Your task to perform on an android device: Go to Android settings Image 0: 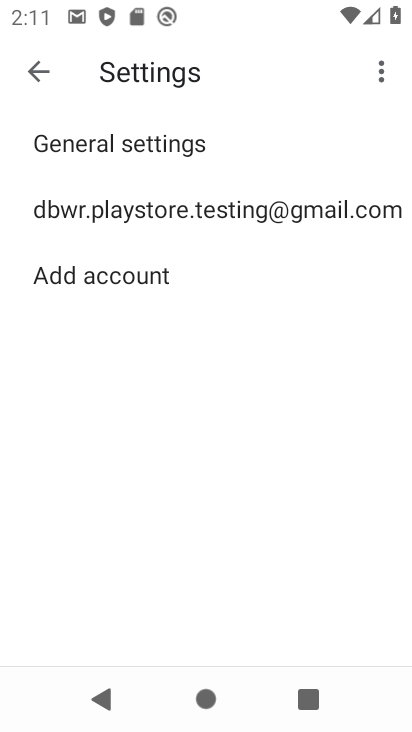
Step 0: press home button
Your task to perform on an android device: Go to Android settings Image 1: 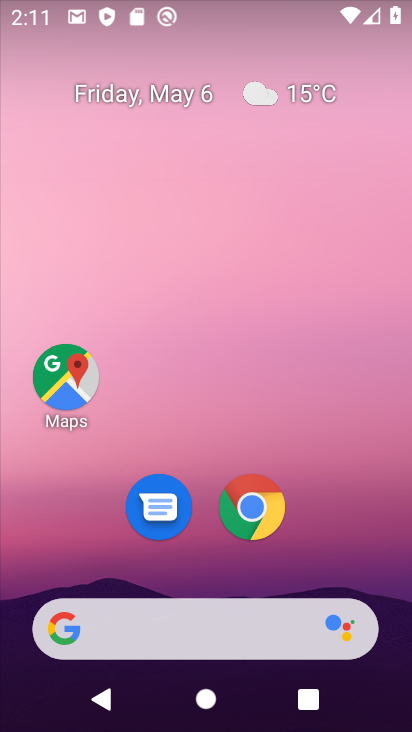
Step 1: click (406, 81)
Your task to perform on an android device: Go to Android settings Image 2: 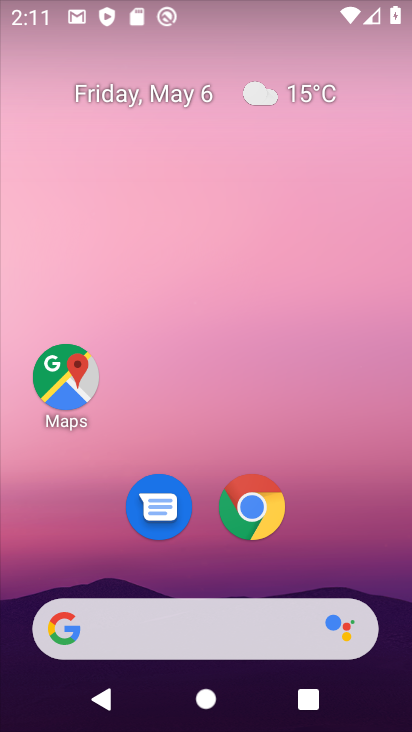
Step 2: drag from (322, 474) to (333, 82)
Your task to perform on an android device: Go to Android settings Image 3: 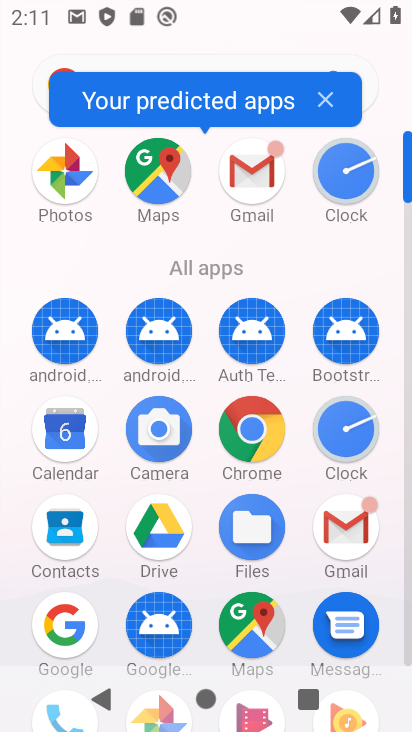
Step 3: drag from (302, 579) to (327, 388)
Your task to perform on an android device: Go to Android settings Image 4: 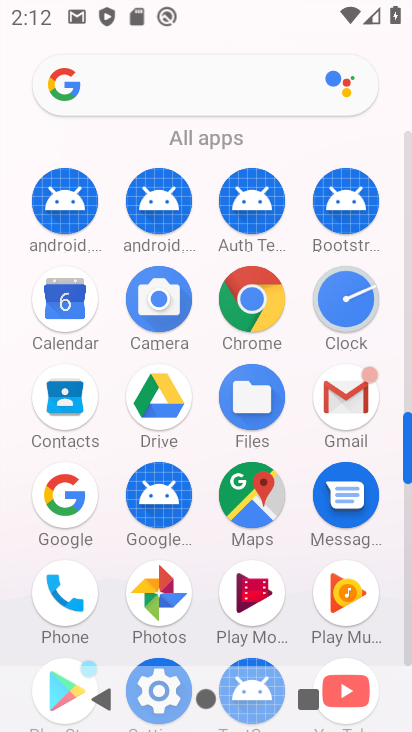
Step 4: drag from (214, 603) to (236, 486)
Your task to perform on an android device: Go to Android settings Image 5: 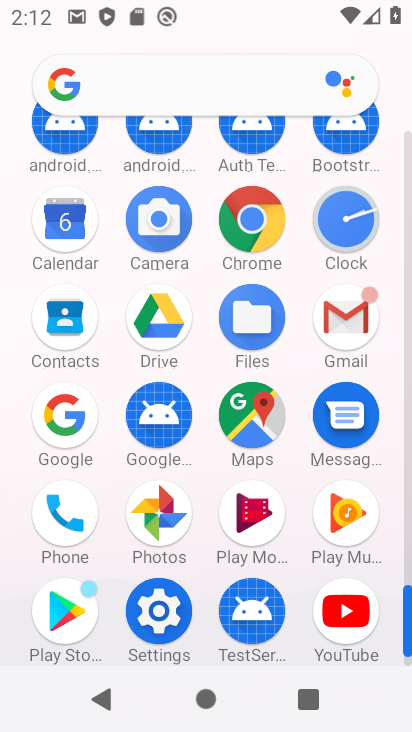
Step 5: click (168, 625)
Your task to perform on an android device: Go to Android settings Image 6: 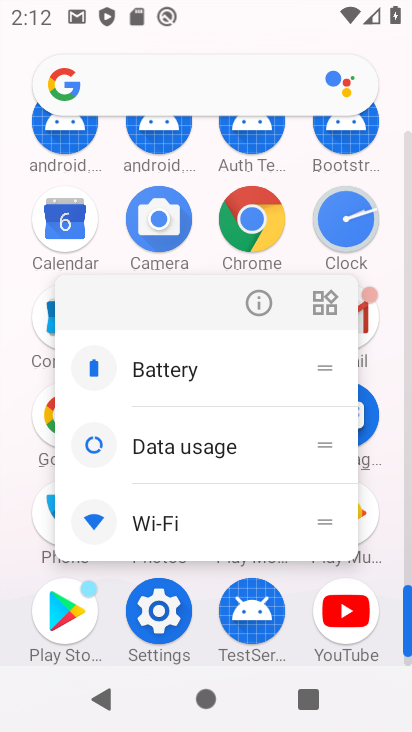
Step 6: click (178, 599)
Your task to perform on an android device: Go to Android settings Image 7: 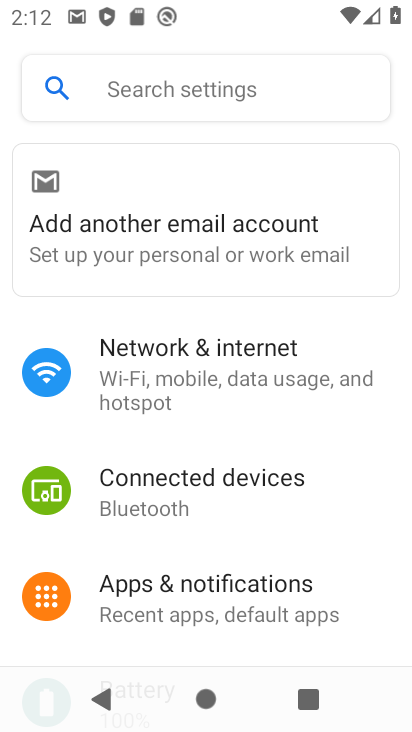
Step 7: drag from (273, 425) to (273, 276)
Your task to perform on an android device: Go to Android settings Image 8: 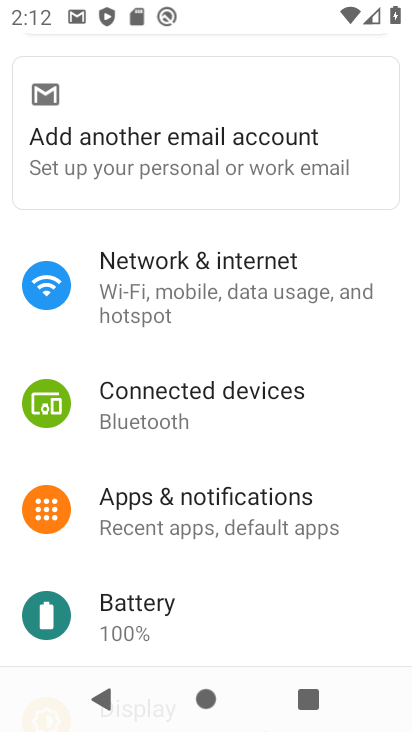
Step 8: drag from (317, 572) to (262, 395)
Your task to perform on an android device: Go to Android settings Image 9: 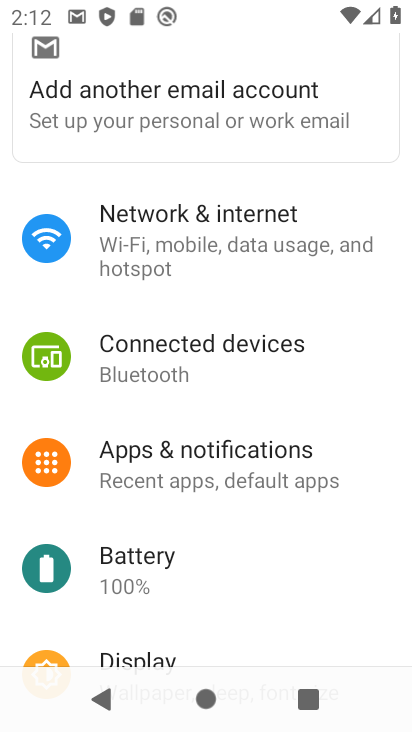
Step 9: drag from (237, 593) to (259, 154)
Your task to perform on an android device: Go to Android settings Image 10: 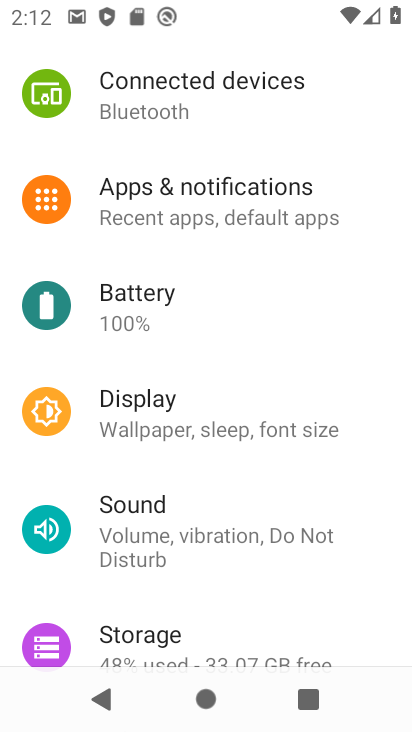
Step 10: drag from (255, 594) to (254, 382)
Your task to perform on an android device: Go to Android settings Image 11: 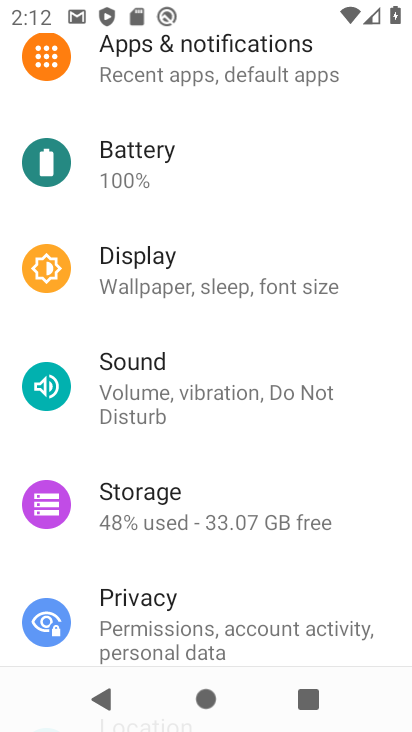
Step 11: drag from (230, 576) to (231, 234)
Your task to perform on an android device: Go to Android settings Image 12: 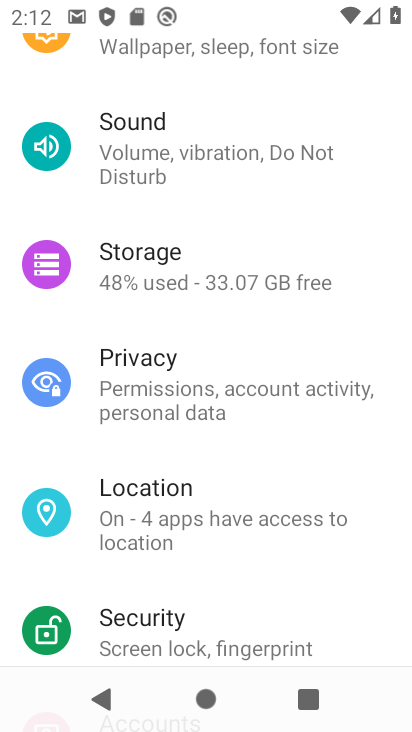
Step 12: drag from (223, 594) to (217, 222)
Your task to perform on an android device: Go to Android settings Image 13: 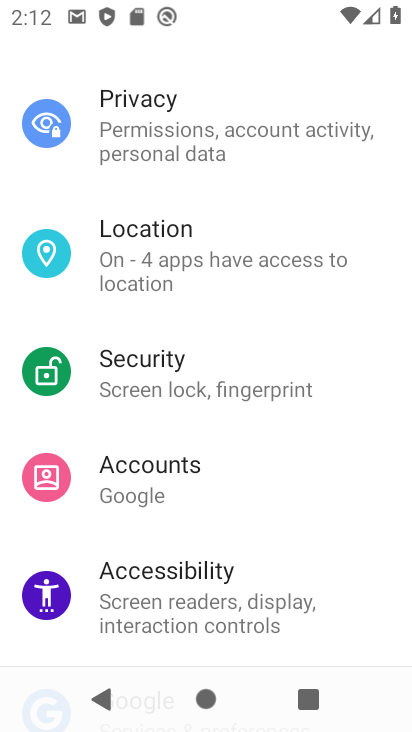
Step 13: drag from (249, 542) to (249, 274)
Your task to perform on an android device: Go to Android settings Image 14: 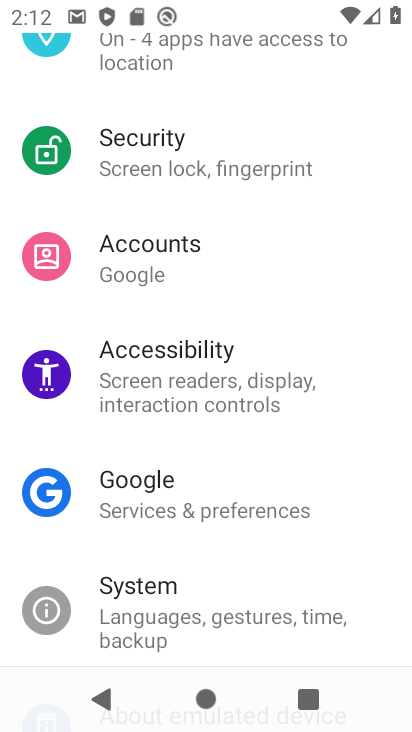
Step 14: drag from (281, 553) to (255, 213)
Your task to perform on an android device: Go to Android settings Image 15: 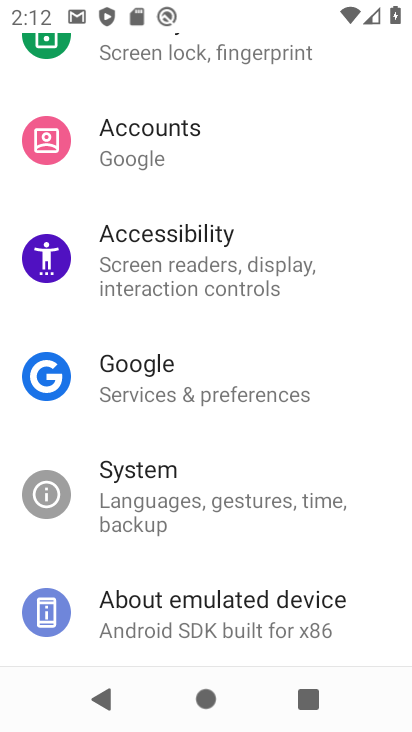
Step 15: click (206, 609)
Your task to perform on an android device: Go to Android settings Image 16: 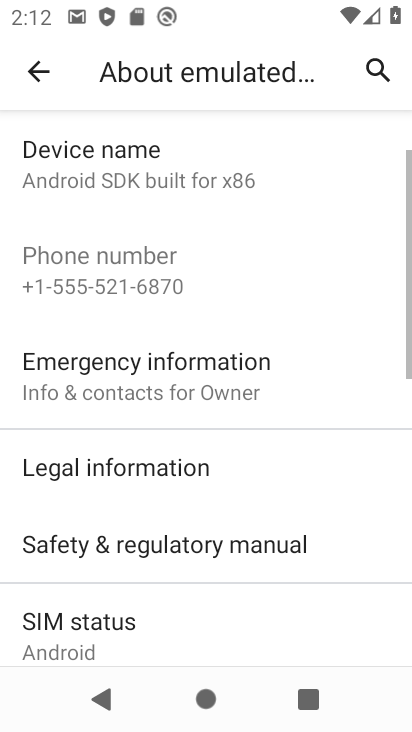
Step 16: drag from (191, 589) to (197, 261)
Your task to perform on an android device: Go to Android settings Image 17: 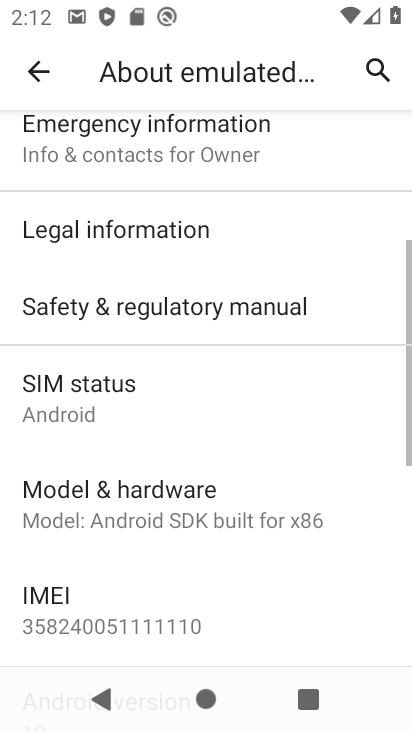
Step 17: drag from (191, 547) to (204, 264)
Your task to perform on an android device: Go to Android settings Image 18: 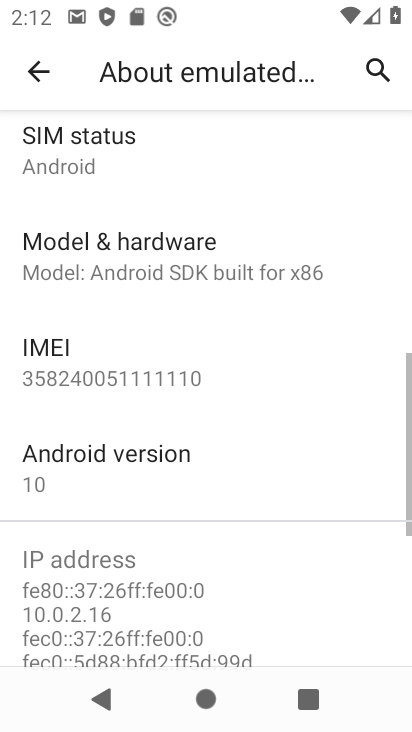
Step 18: click (167, 494)
Your task to perform on an android device: Go to Android settings Image 19: 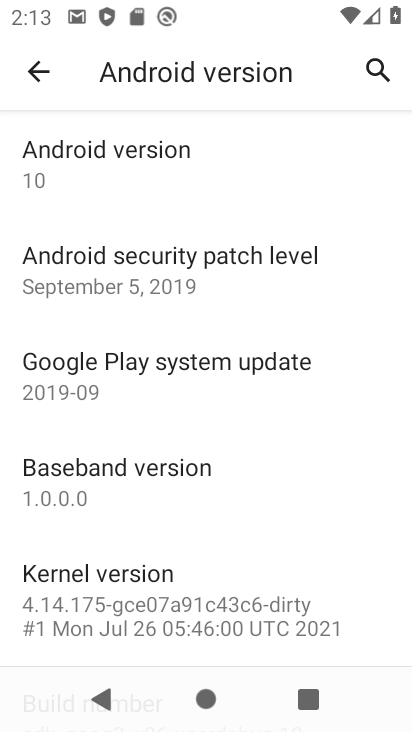
Step 19: task complete